Your task to perform on an android device: Toggle the flashlight Image 0: 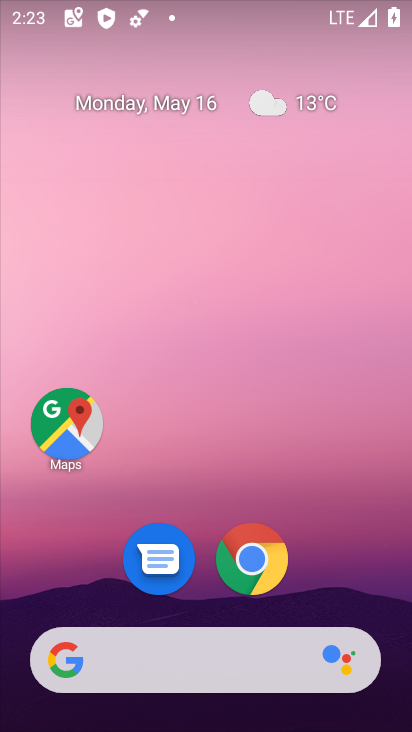
Step 0: drag from (169, 618) to (244, 66)
Your task to perform on an android device: Toggle the flashlight Image 1: 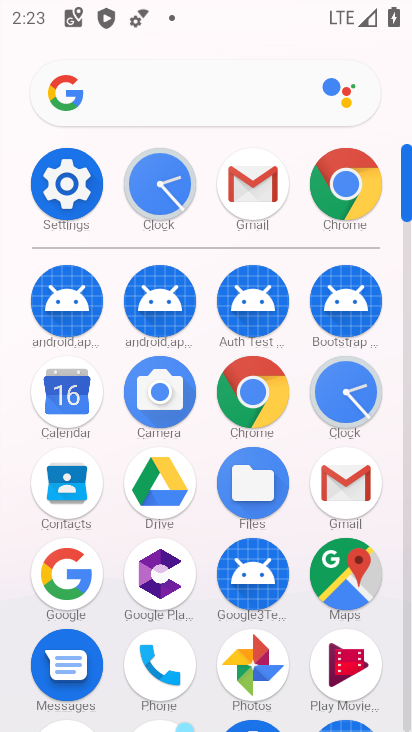
Step 1: click (65, 178)
Your task to perform on an android device: Toggle the flashlight Image 2: 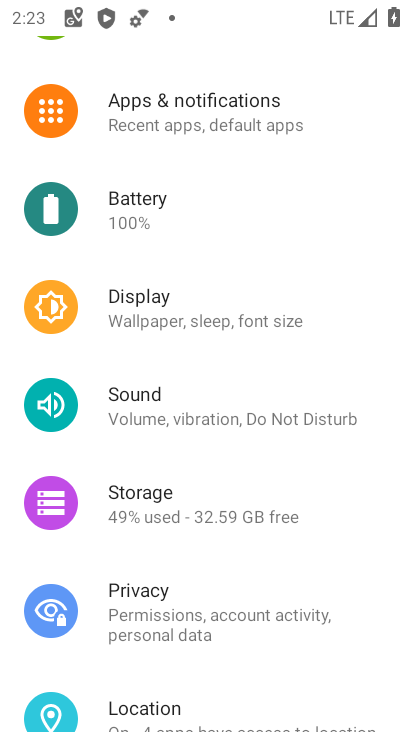
Step 2: drag from (179, 136) to (188, 670)
Your task to perform on an android device: Toggle the flashlight Image 3: 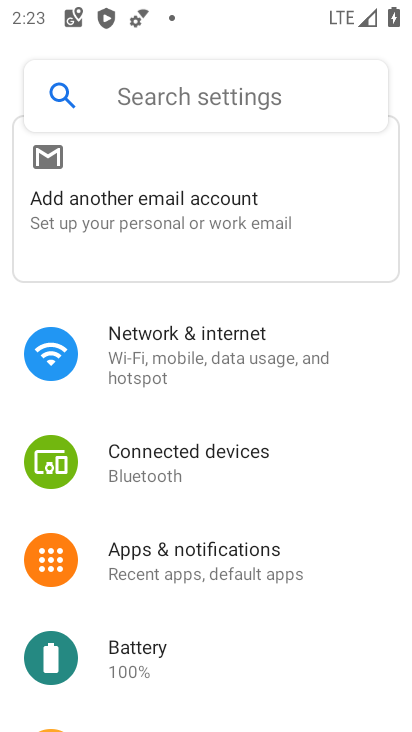
Step 3: click (150, 96)
Your task to perform on an android device: Toggle the flashlight Image 4: 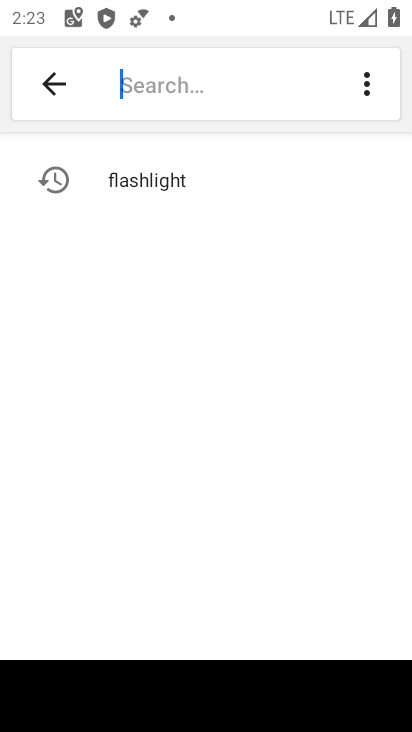
Step 4: type "flashlight"
Your task to perform on an android device: Toggle the flashlight Image 5: 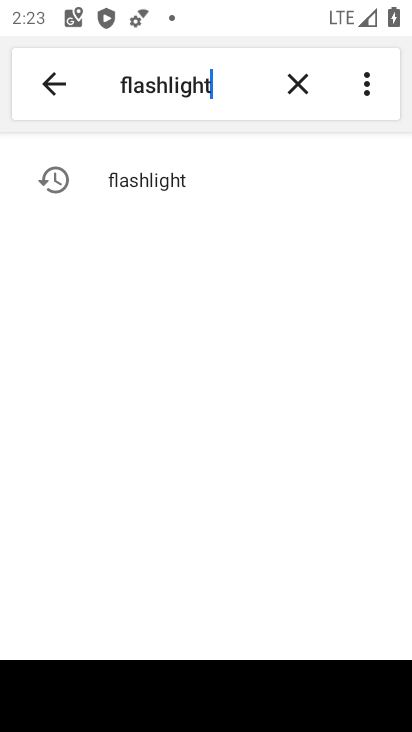
Step 5: click (180, 185)
Your task to perform on an android device: Toggle the flashlight Image 6: 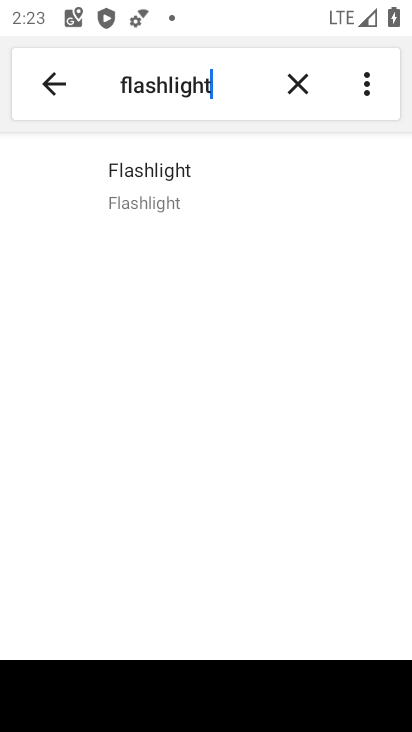
Step 6: task complete